Your task to perform on an android device: Toggle the flashlight Image 0: 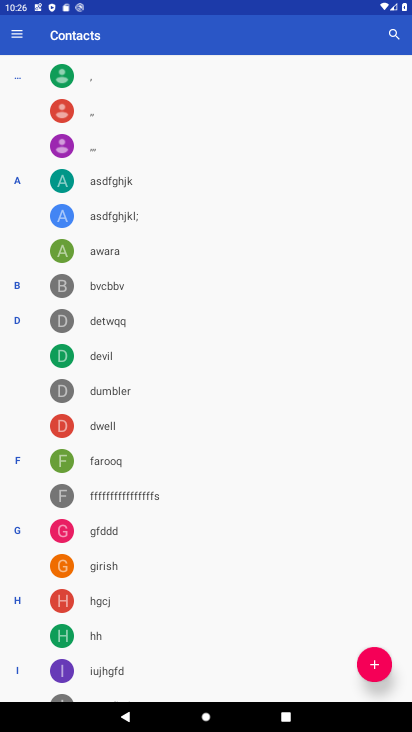
Step 0: press home button
Your task to perform on an android device: Toggle the flashlight Image 1: 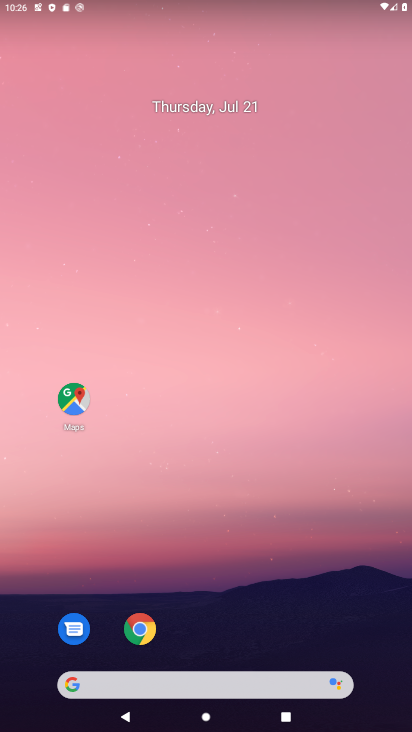
Step 1: drag from (205, 640) to (337, 14)
Your task to perform on an android device: Toggle the flashlight Image 2: 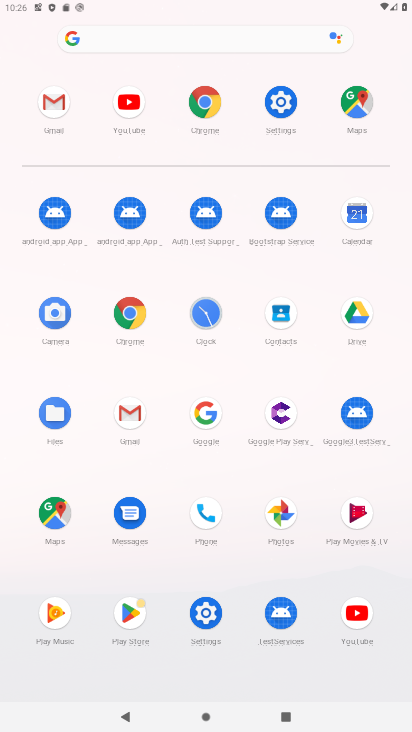
Step 2: click (291, 94)
Your task to perform on an android device: Toggle the flashlight Image 3: 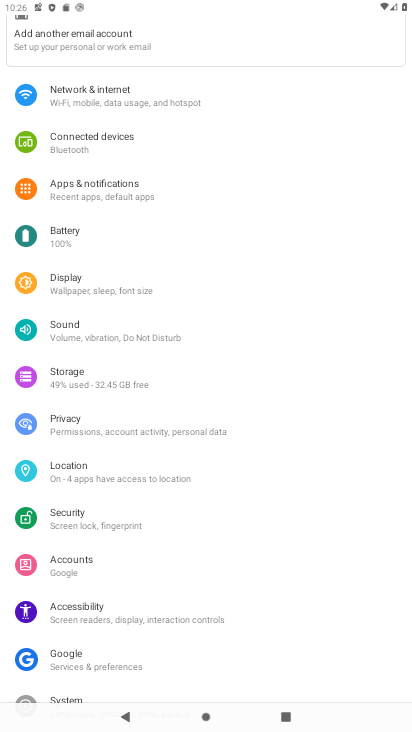
Step 3: task complete